Your task to perform on an android device: What's the weather? Image 0: 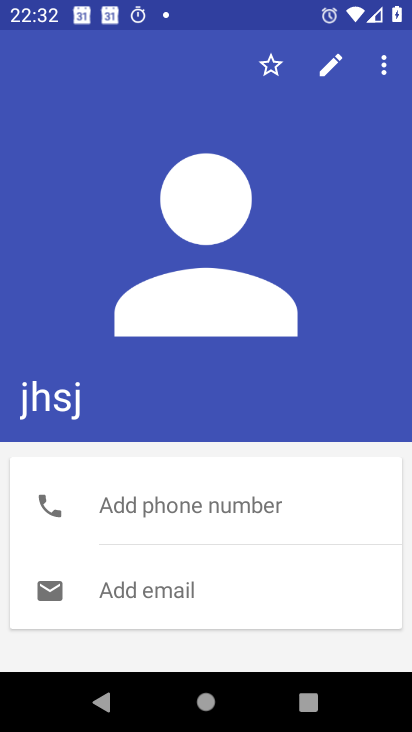
Step 0: press home button
Your task to perform on an android device: What's the weather? Image 1: 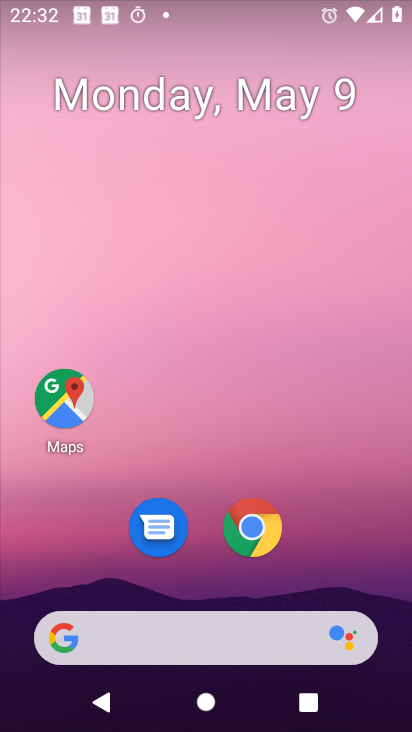
Step 1: drag from (213, 565) to (190, 85)
Your task to perform on an android device: What's the weather? Image 2: 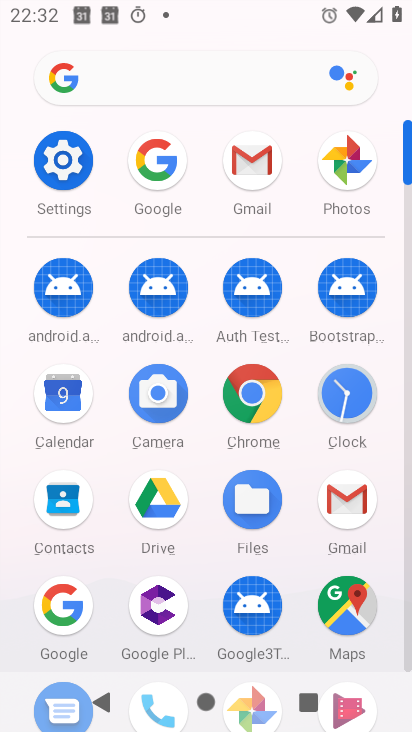
Step 2: click (68, 591)
Your task to perform on an android device: What's the weather? Image 3: 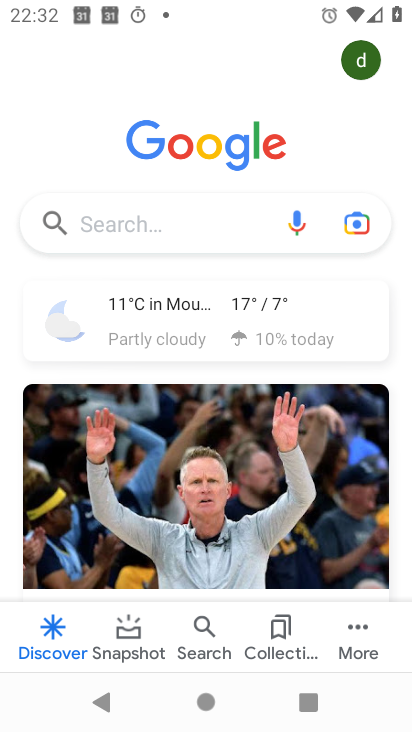
Step 3: click (185, 223)
Your task to perform on an android device: What's the weather? Image 4: 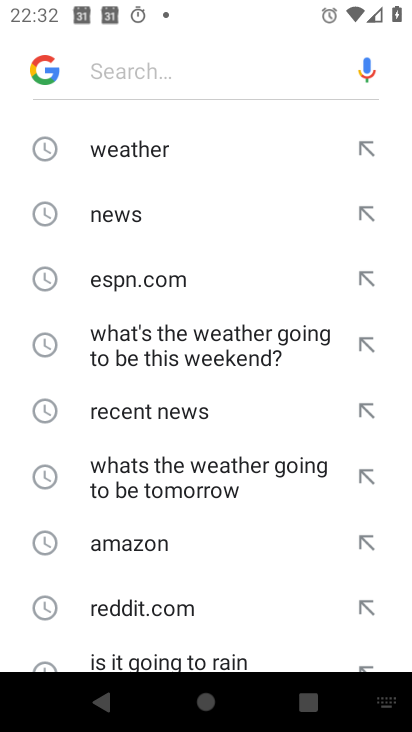
Step 4: click (154, 153)
Your task to perform on an android device: What's the weather? Image 5: 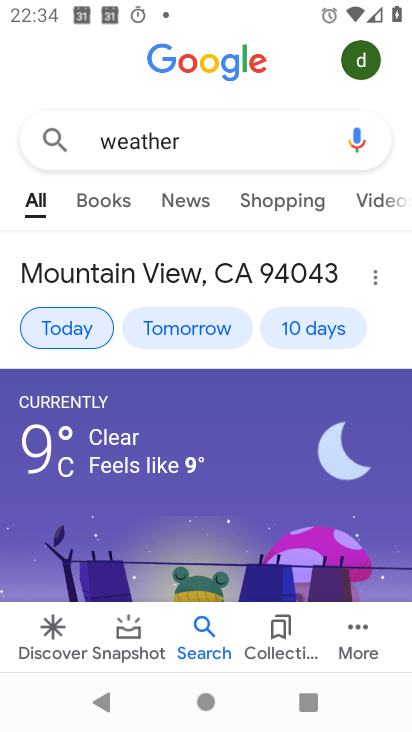
Step 5: task complete